Your task to perform on an android device: turn off location Image 0: 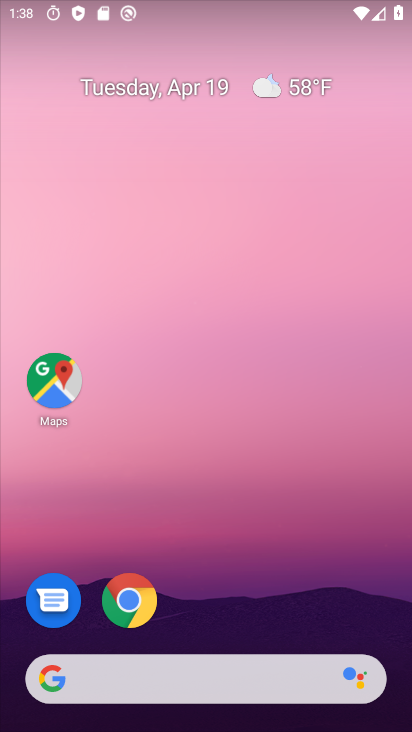
Step 0: drag from (239, 721) to (342, 274)
Your task to perform on an android device: turn off location Image 1: 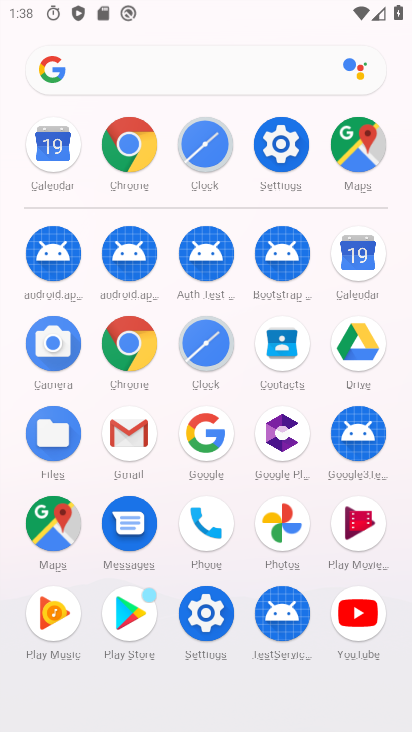
Step 1: click (293, 139)
Your task to perform on an android device: turn off location Image 2: 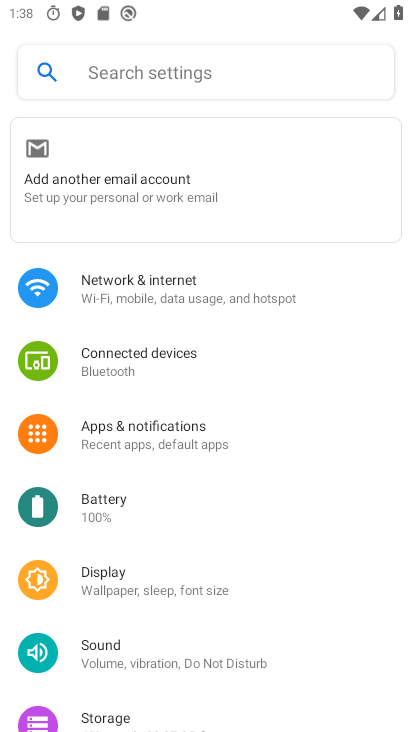
Step 2: click (220, 86)
Your task to perform on an android device: turn off location Image 3: 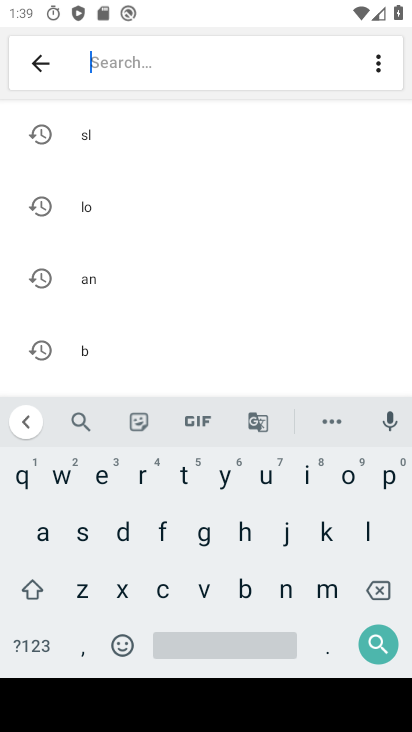
Step 3: click (103, 210)
Your task to perform on an android device: turn off location Image 4: 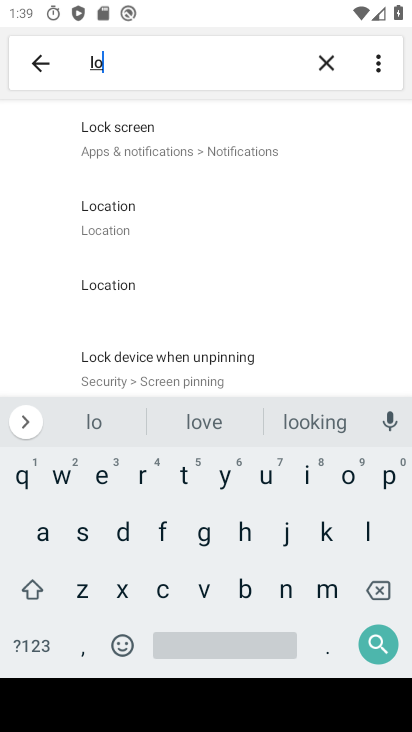
Step 4: click (88, 211)
Your task to perform on an android device: turn off location Image 5: 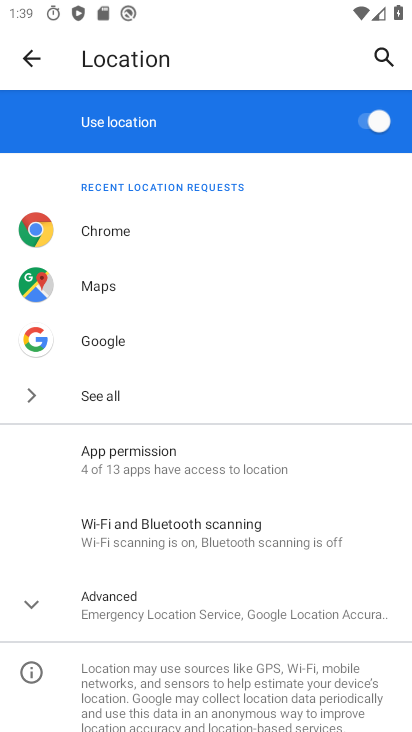
Step 5: click (357, 166)
Your task to perform on an android device: turn off location Image 6: 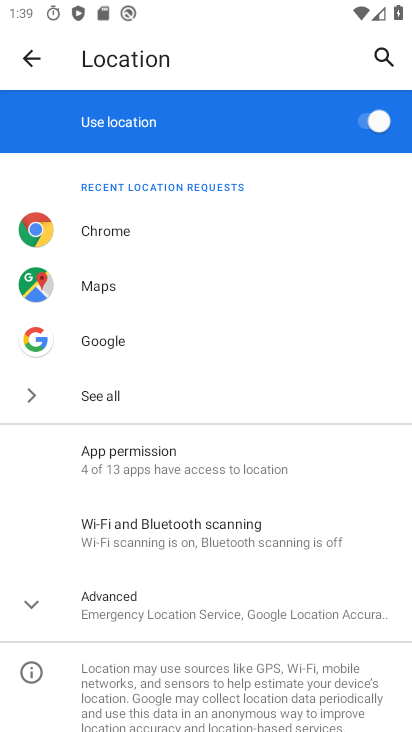
Step 6: click (355, 132)
Your task to perform on an android device: turn off location Image 7: 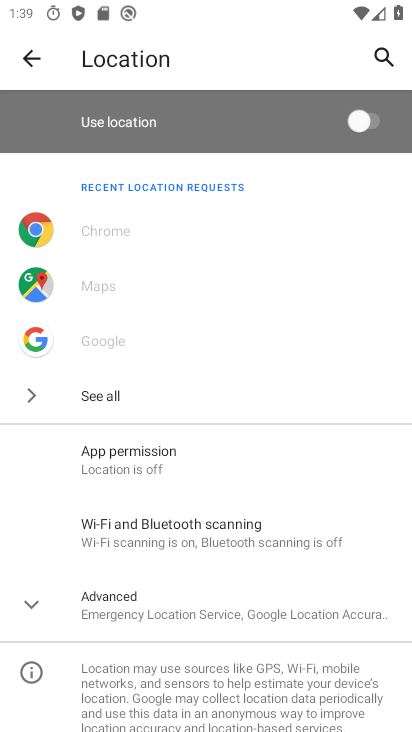
Step 7: task complete